Your task to perform on an android device: turn off location history Image 0: 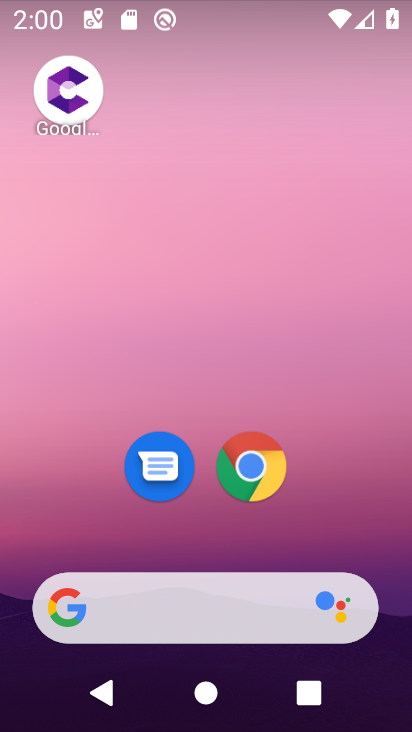
Step 0: drag from (342, 523) to (355, 50)
Your task to perform on an android device: turn off location history Image 1: 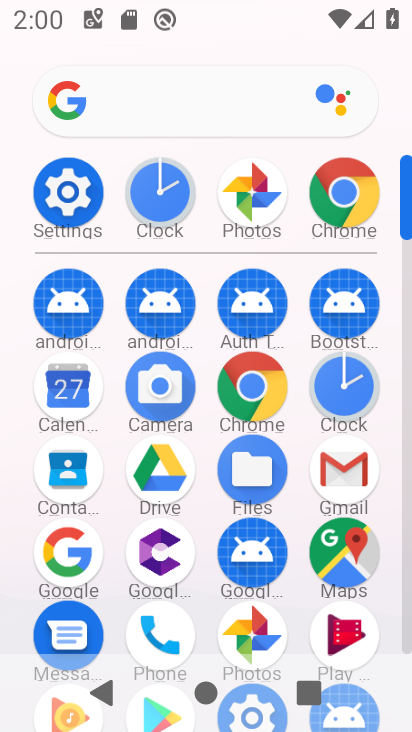
Step 1: click (54, 196)
Your task to perform on an android device: turn off location history Image 2: 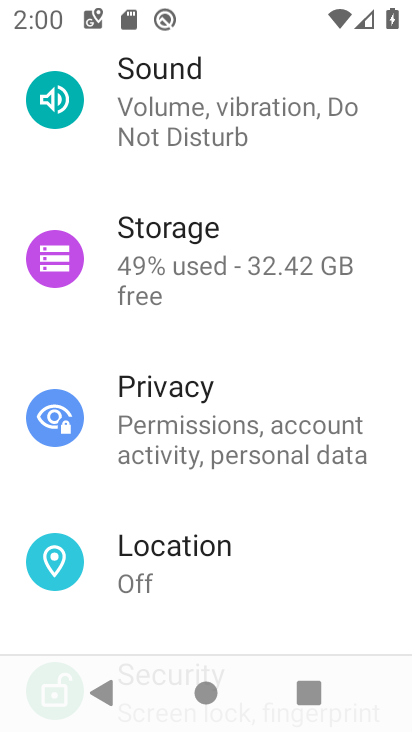
Step 2: drag from (187, 580) to (236, 215)
Your task to perform on an android device: turn off location history Image 3: 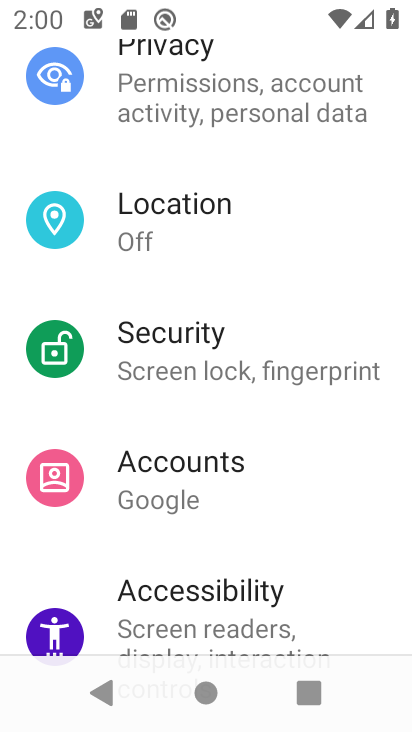
Step 3: click (161, 208)
Your task to perform on an android device: turn off location history Image 4: 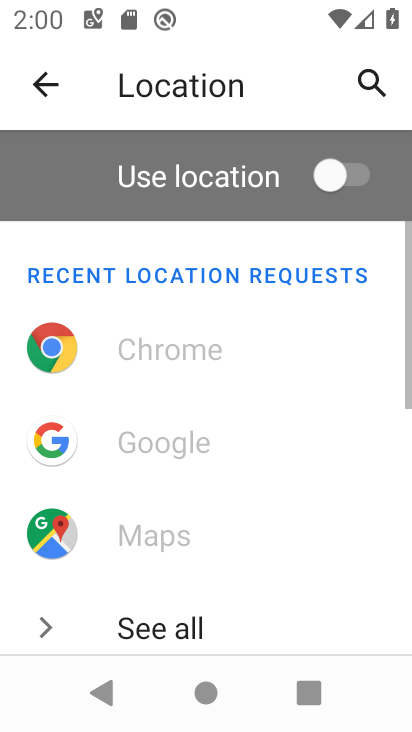
Step 4: drag from (242, 500) to (276, 122)
Your task to perform on an android device: turn off location history Image 5: 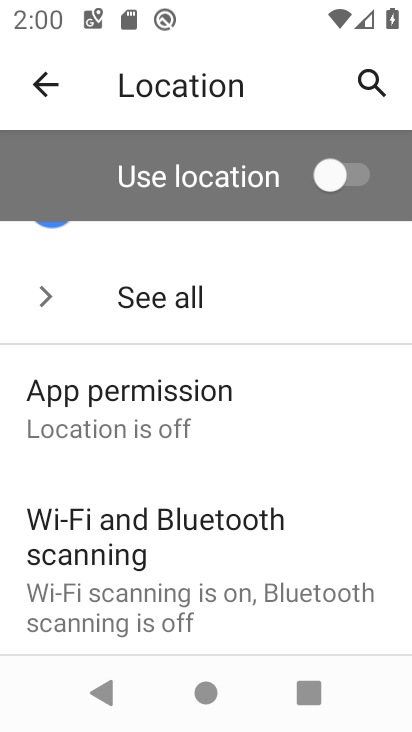
Step 5: drag from (227, 495) to (278, 121)
Your task to perform on an android device: turn off location history Image 6: 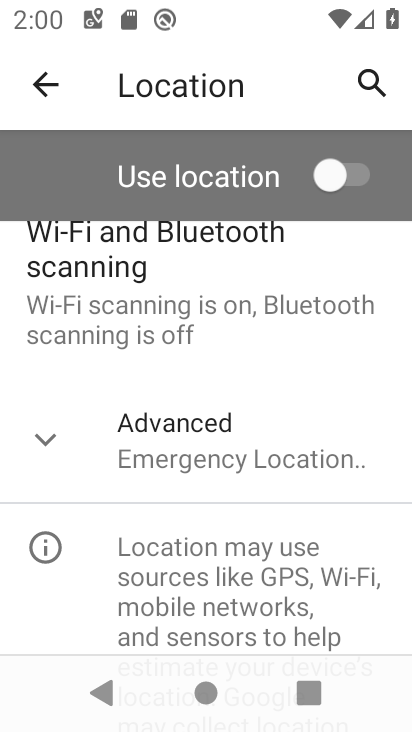
Step 6: click (204, 450)
Your task to perform on an android device: turn off location history Image 7: 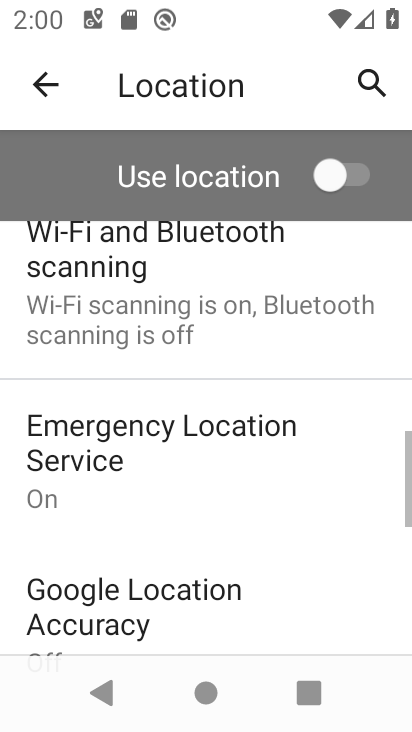
Step 7: drag from (206, 554) to (281, 289)
Your task to perform on an android device: turn off location history Image 8: 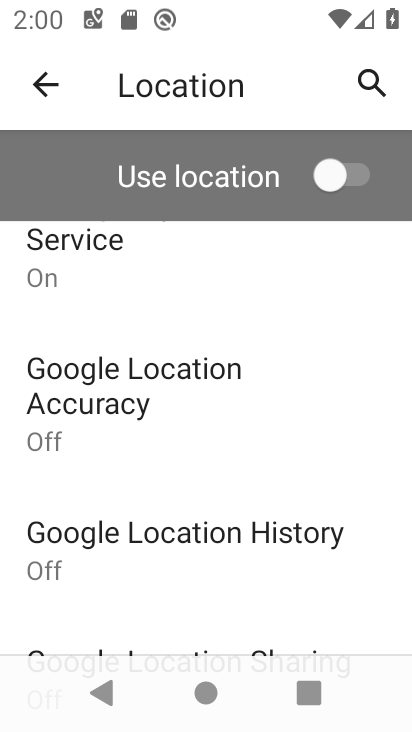
Step 8: click (209, 538)
Your task to perform on an android device: turn off location history Image 9: 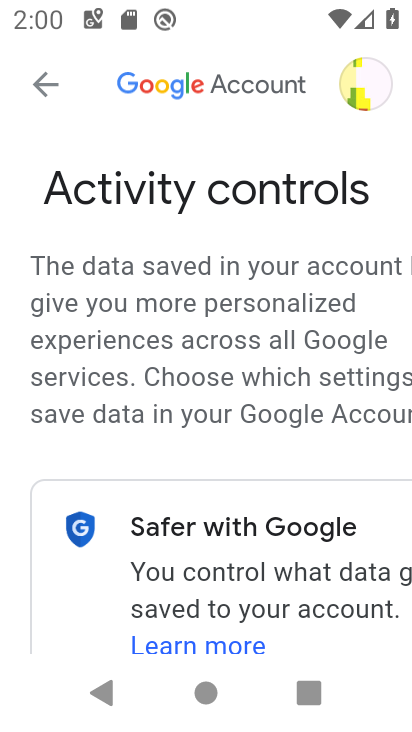
Step 9: drag from (242, 565) to (258, 198)
Your task to perform on an android device: turn off location history Image 10: 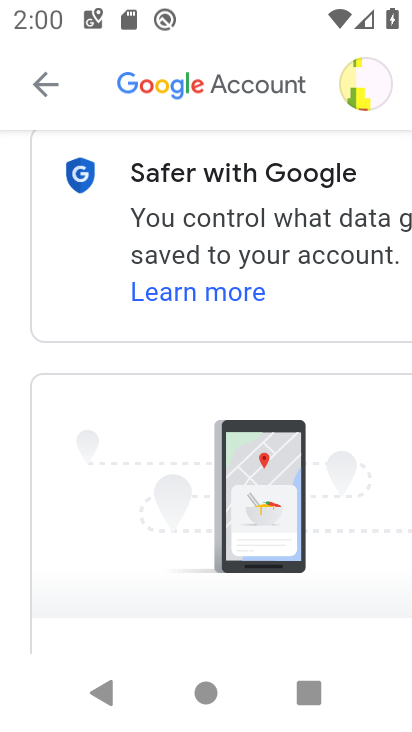
Step 10: drag from (256, 560) to (260, 197)
Your task to perform on an android device: turn off location history Image 11: 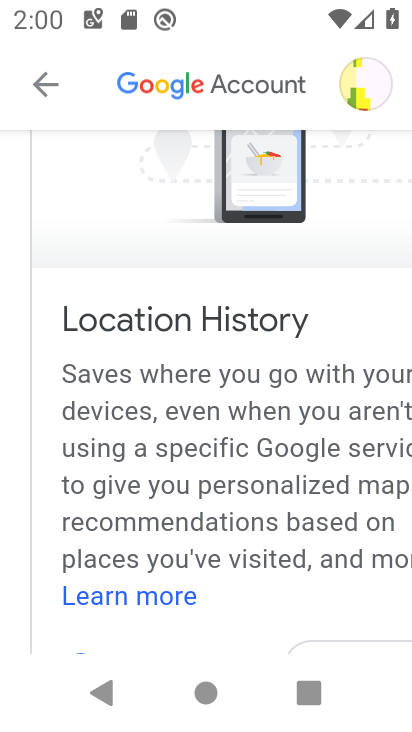
Step 11: drag from (238, 553) to (268, 201)
Your task to perform on an android device: turn off location history Image 12: 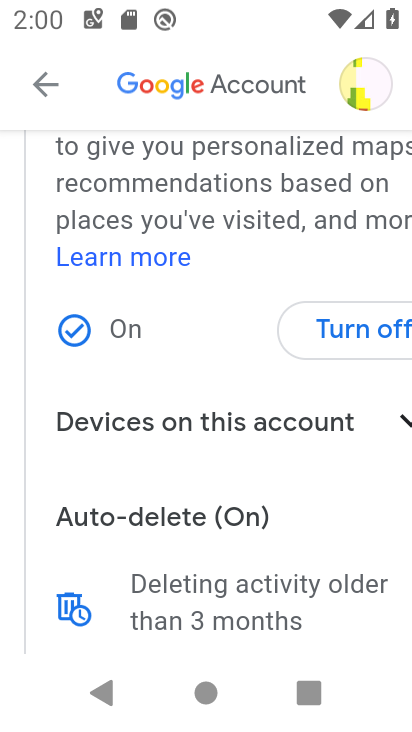
Step 12: drag from (289, 598) to (214, 572)
Your task to perform on an android device: turn off location history Image 13: 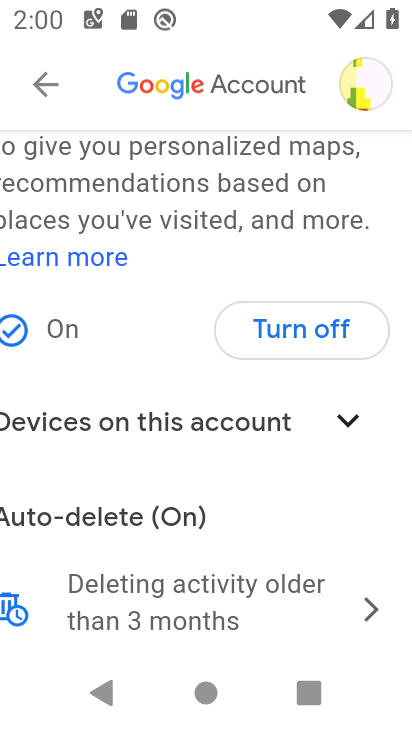
Step 13: drag from (150, 500) to (285, 494)
Your task to perform on an android device: turn off location history Image 14: 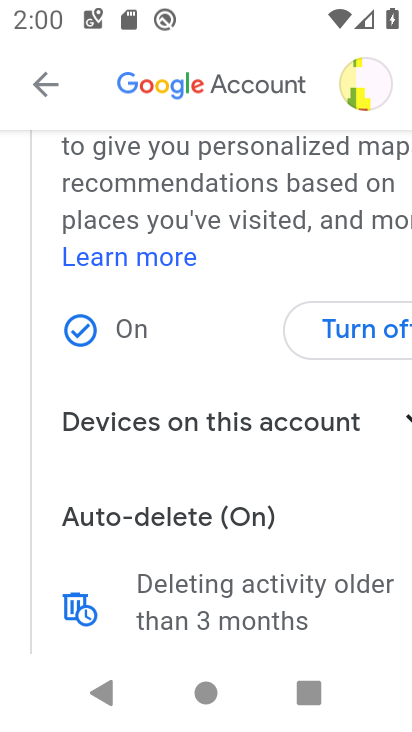
Step 14: click (363, 328)
Your task to perform on an android device: turn off location history Image 15: 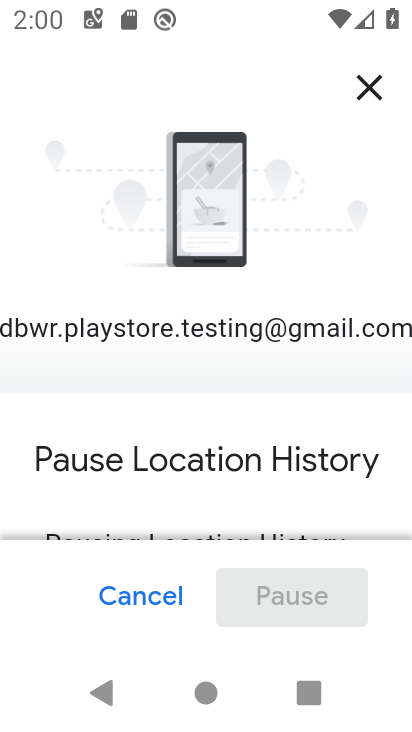
Step 15: drag from (309, 488) to (317, 28)
Your task to perform on an android device: turn off location history Image 16: 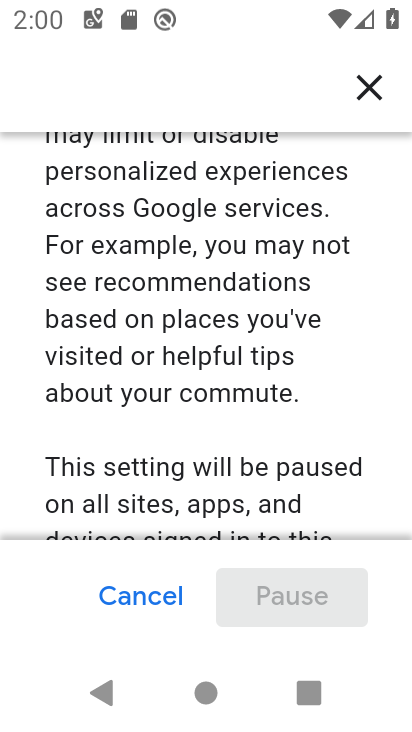
Step 16: drag from (246, 487) to (293, 47)
Your task to perform on an android device: turn off location history Image 17: 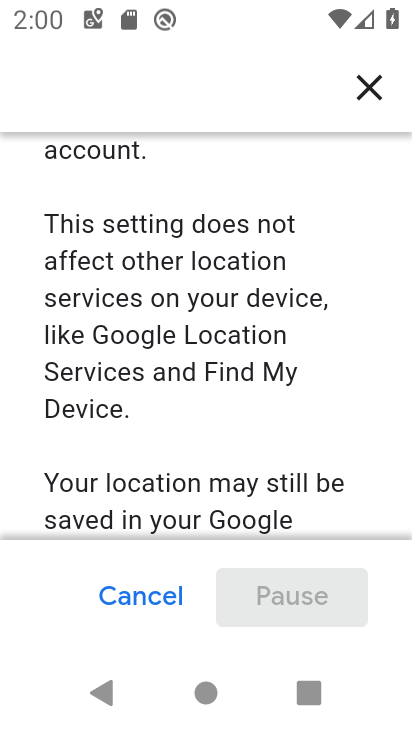
Step 17: drag from (244, 483) to (305, 57)
Your task to perform on an android device: turn off location history Image 18: 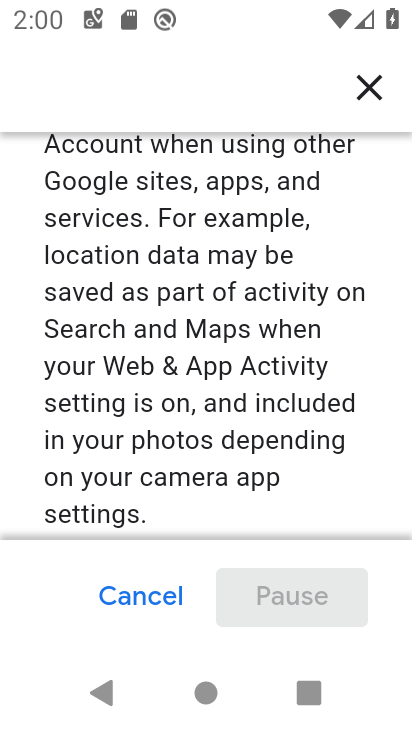
Step 18: drag from (266, 470) to (310, 57)
Your task to perform on an android device: turn off location history Image 19: 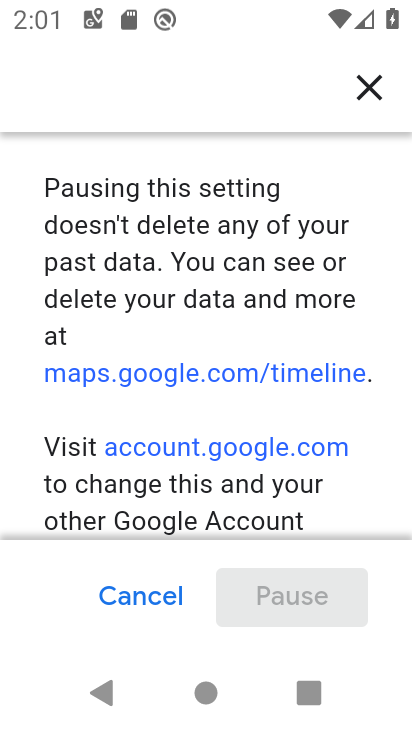
Step 19: drag from (280, 456) to (325, 61)
Your task to perform on an android device: turn off location history Image 20: 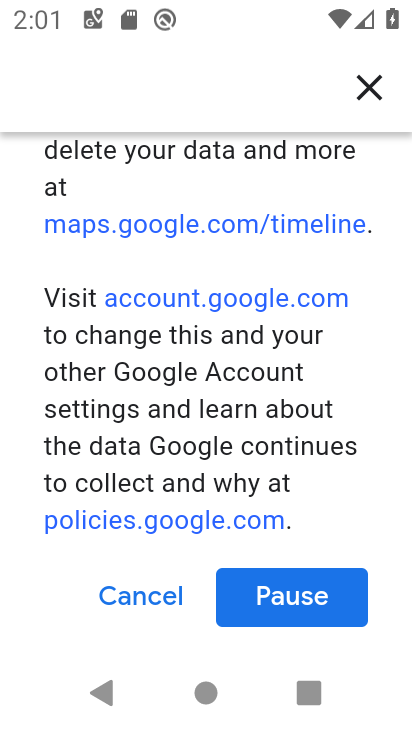
Step 20: drag from (284, 485) to (313, 220)
Your task to perform on an android device: turn off location history Image 21: 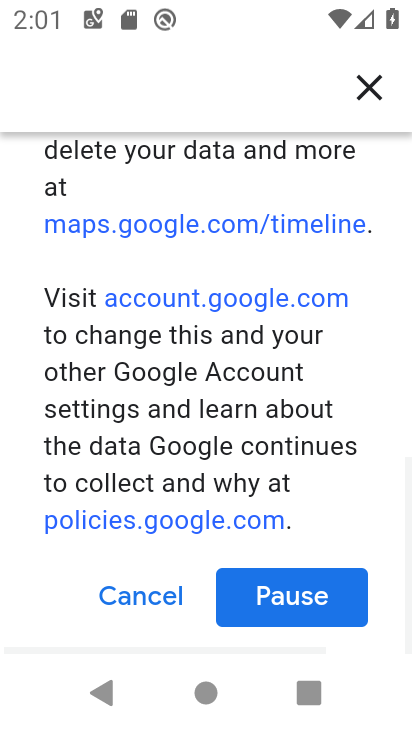
Step 21: click (306, 600)
Your task to perform on an android device: turn off location history Image 22: 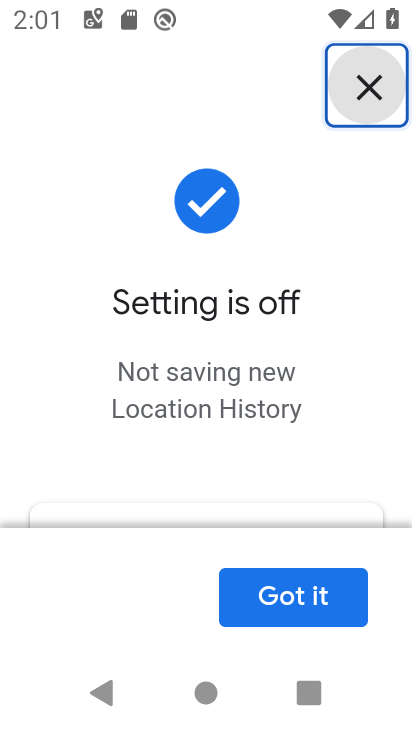
Step 22: click (304, 596)
Your task to perform on an android device: turn off location history Image 23: 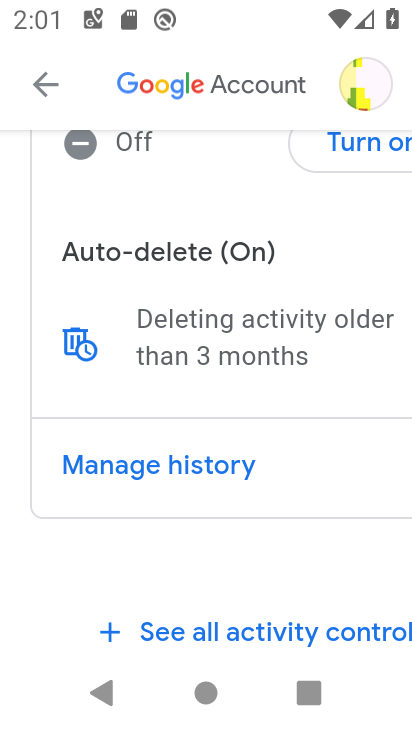
Step 23: task complete